Your task to perform on an android device: Is it going to rain today? Image 0: 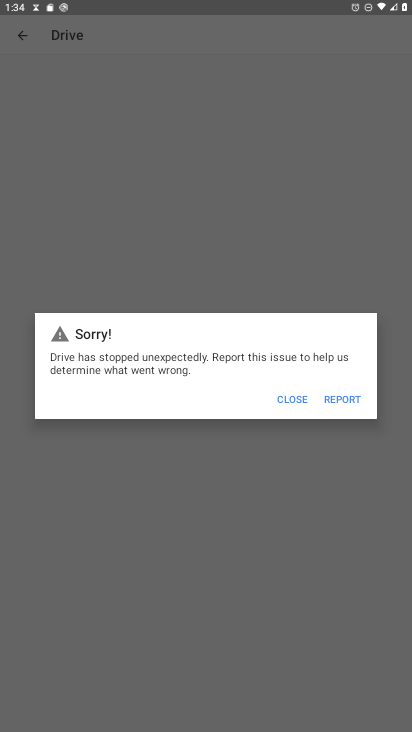
Step 0: press home button
Your task to perform on an android device: Is it going to rain today? Image 1: 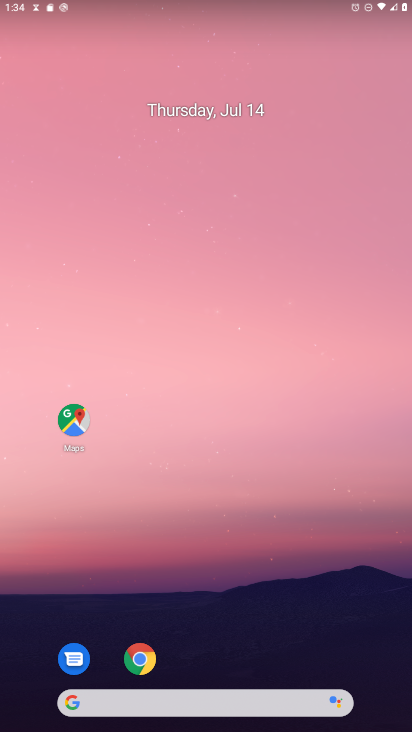
Step 1: click (80, 703)
Your task to perform on an android device: Is it going to rain today? Image 2: 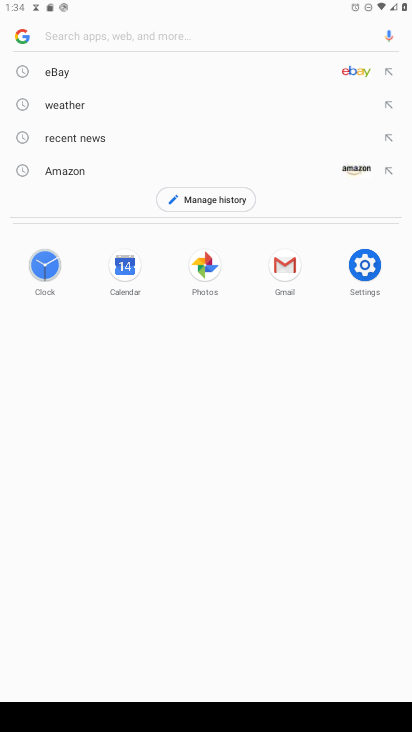
Step 2: type "Is it going to rain today?"
Your task to perform on an android device: Is it going to rain today? Image 3: 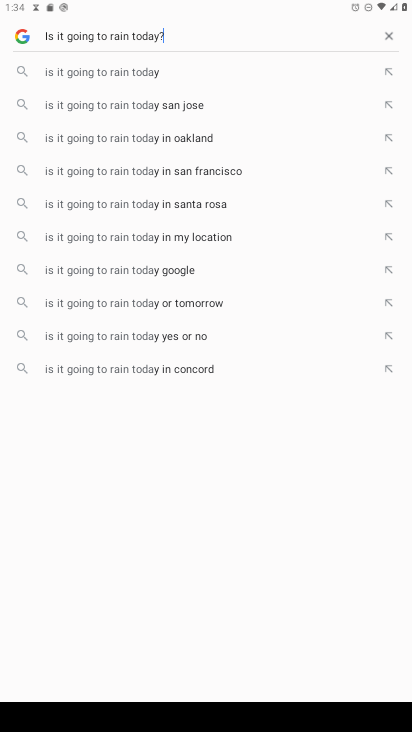
Step 3: type ""
Your task to perform on an android device: Is it going to rain today? Image 4: 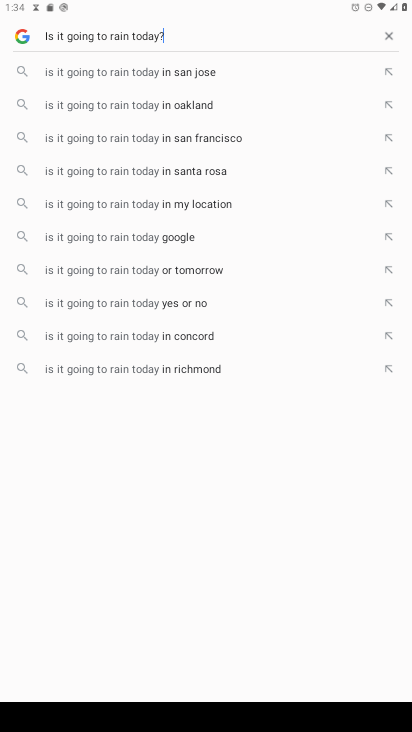
Step 4: type ""
Your task to perform on an android device: Is it going to rain today? Image 5: 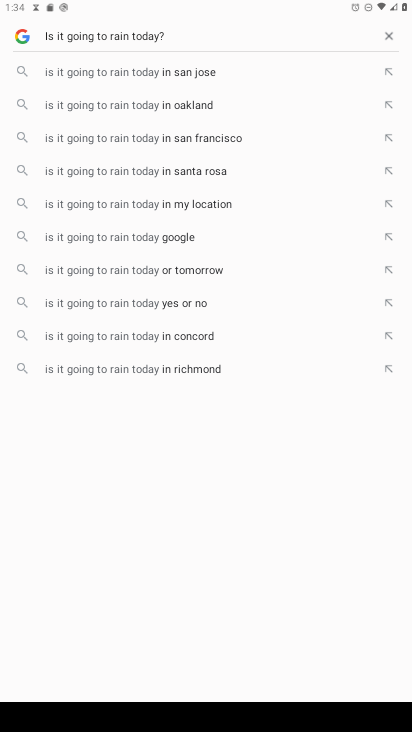
Step 5: type ""
Your task to perform on an android device: Is it going to rain today? Image 6: 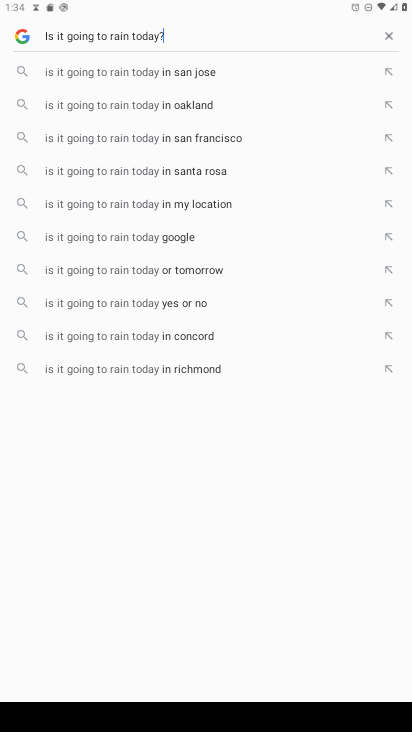
Step 6: task complete